Your task to perform on an android device: What's on my calendar tomorrow? Image 0: 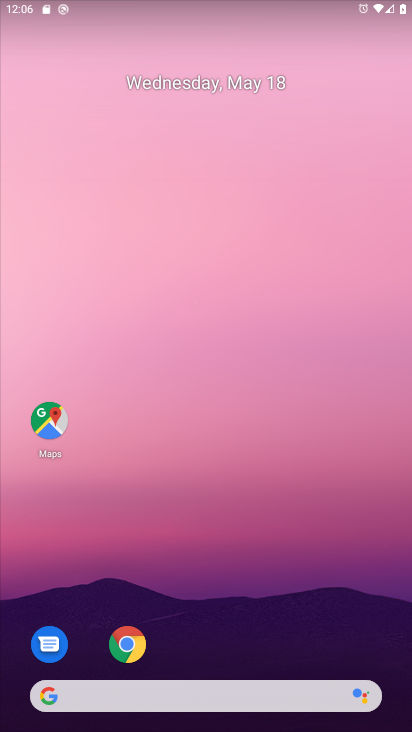
Step 0: drag from (229, 637) to (207, 236)
Your task to perform on an android device: What's on my calendar tomorrow? Image 1: 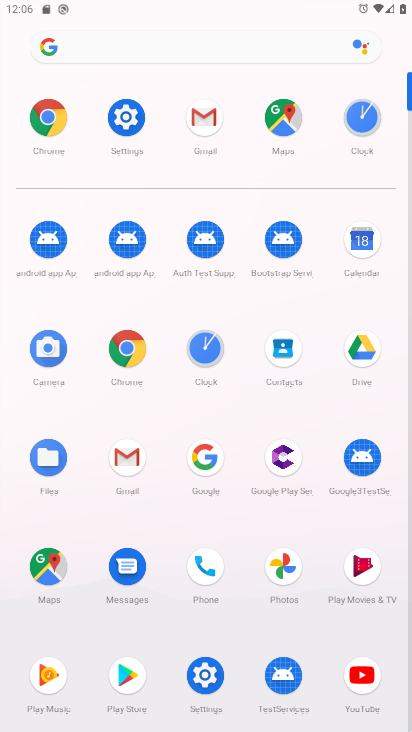
Step 1: click (365, 239)
Your task to perform on an android device: What's on my calendar tomorrow? Image 2: 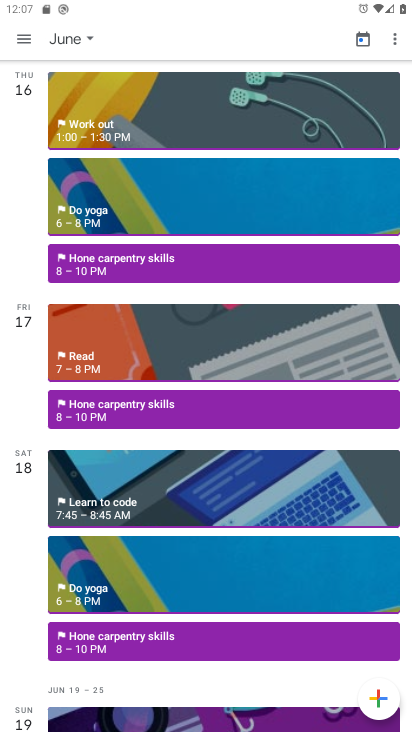
Step 2: click (85, 36)
Your task to perform on an android device: What's on my calendar tomorrow? Image 3: 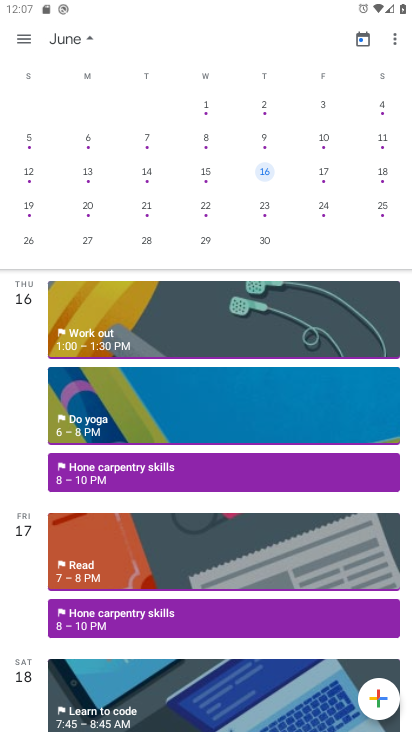
Step 3: drag from (30, 177) to (397, 182)
Your task to perform on an android device: What's on my calendar tomorrow? Image 4: 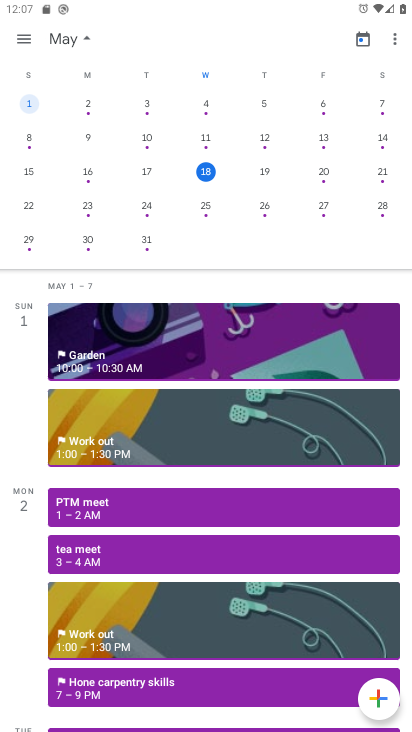
Step 4: click (262, 167)
Your task to perform on an android device: What's on my calendar tomorrow? Image 5: 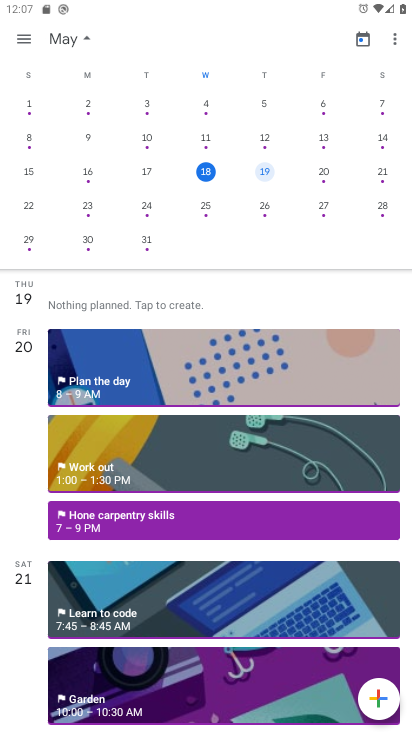
Step 5: click (83, 42)
Your task to perform on an android device: What's on my calendar tomorrow? Image 6: 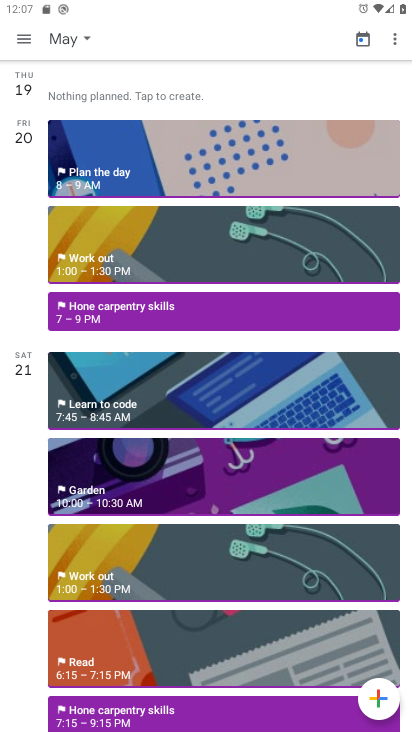
Step 6: click (26, 109)
Your task to perform on an android device: What's on my calendar tomorrow? Image 7: 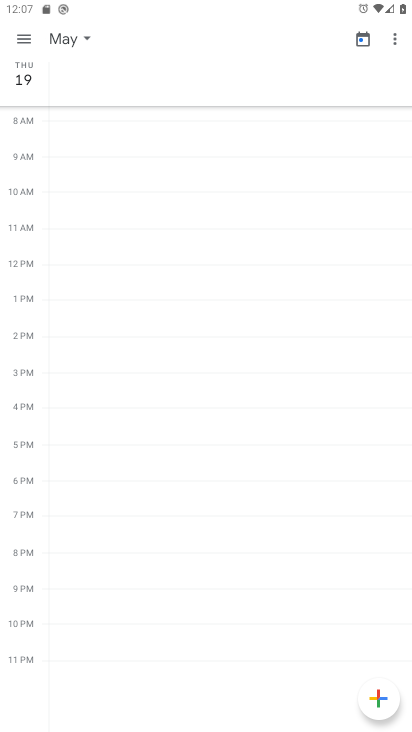
Step 7: task complete